Your task to perform on an android device: see sites visited before in the chrome app Image 0: 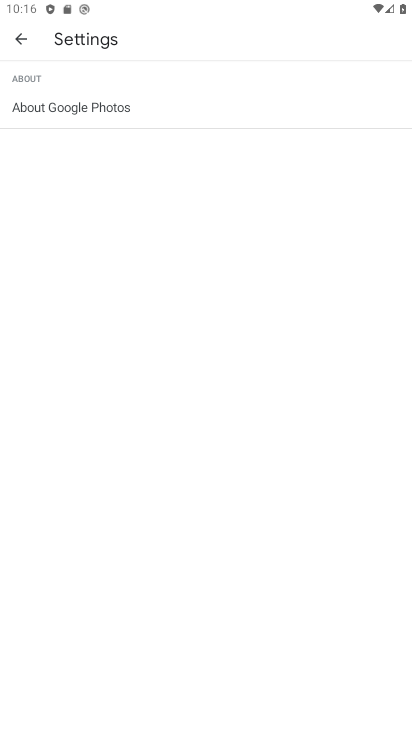
Step 0: press home button
Your task to perform on an android device: see sites visited before in the chrome app Image 1: 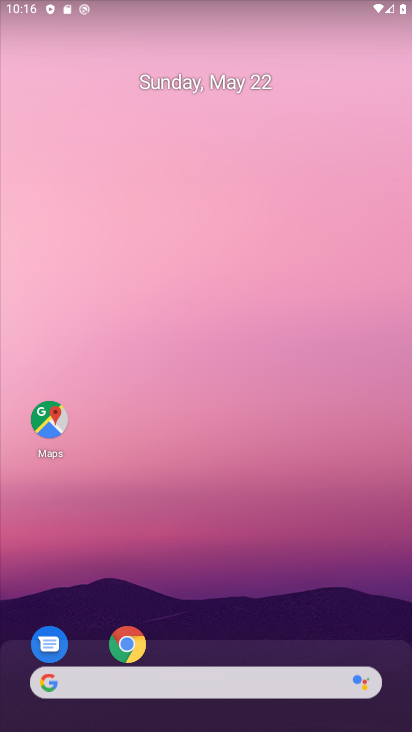
Step 1: drag from (241, 653) to (237, 222)
Your task to perform on an android device: see sites visited before in the chrome app Image 2: 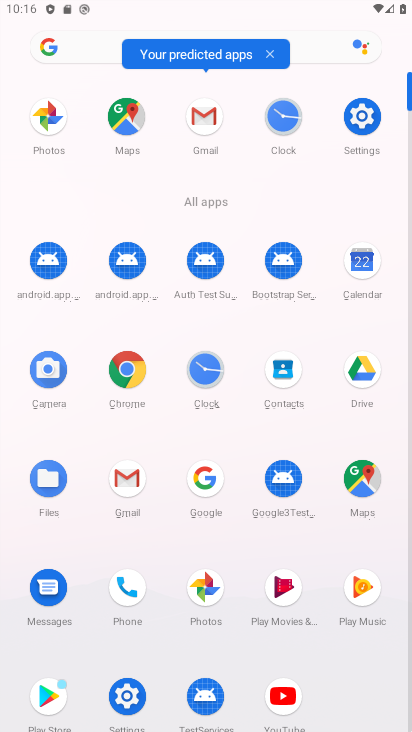
Step 2: click (129, 369)
Your task to perform on an android device: see sites visited before in the chrome app Image 3: 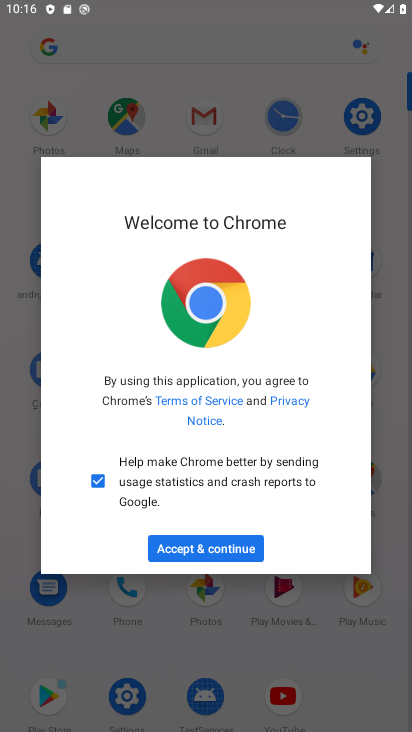
Step 3: click (202, 545)
Your task to perform on an android device: see sites visited before in the chrome app Image 4: 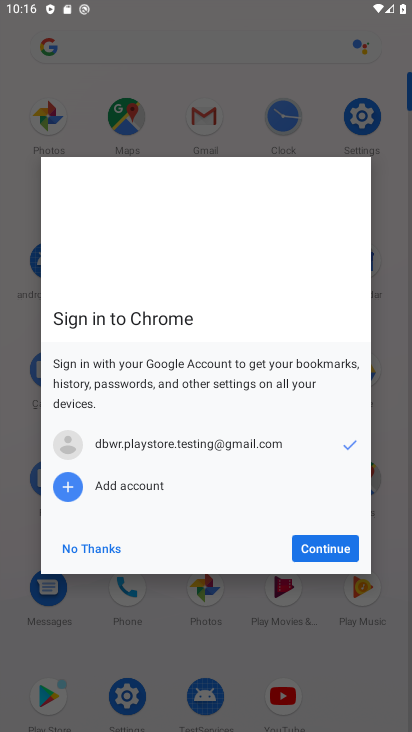
Step 4: click (313, 549)
Your task to perform on an android device: see sites visited before in the chrome app Image 5: 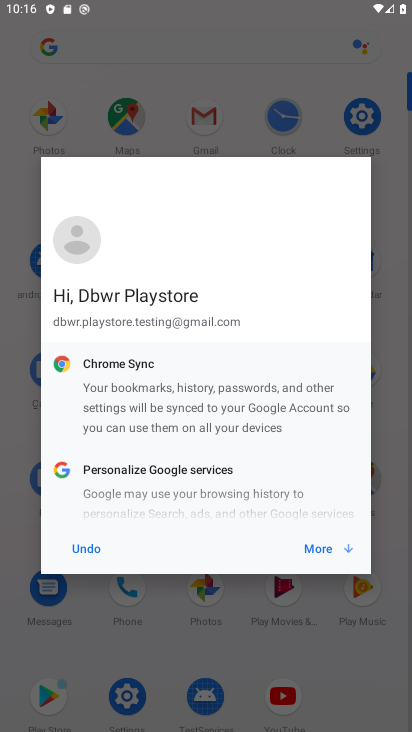
Step 5: click (327, 547)
Your task to perform on an android device: see sites visited before in the chrome app Image 6: 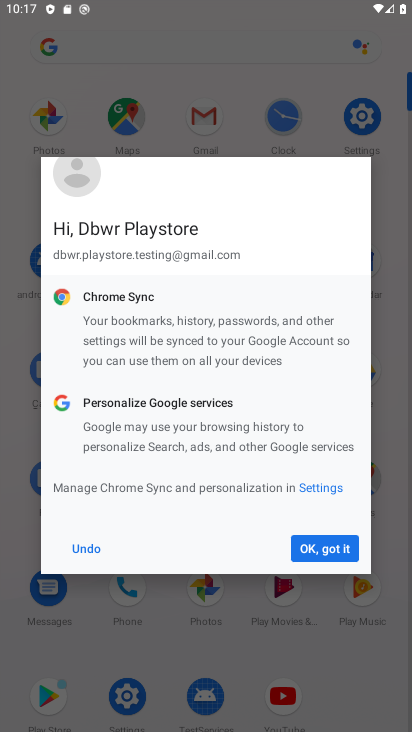
Step 6: click (335, 552)
Your task to perform on an android device: see sites visited before in the chrome app Image 7: 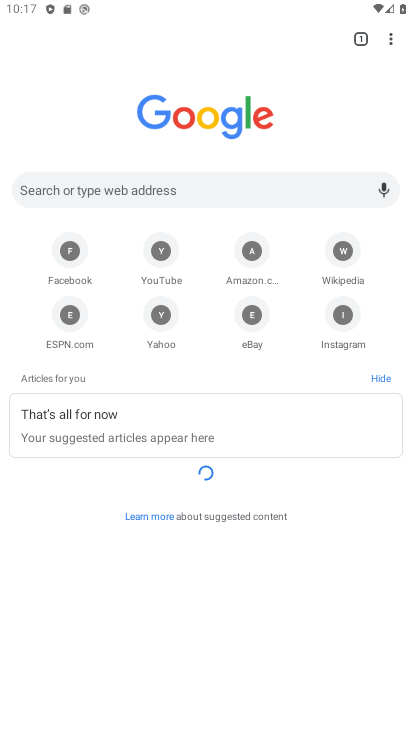
Step 7: task complete